Your task to perform on an android device: Search for razer naga on walmart.com, select the first entry, and add it to the cart. Image 0: 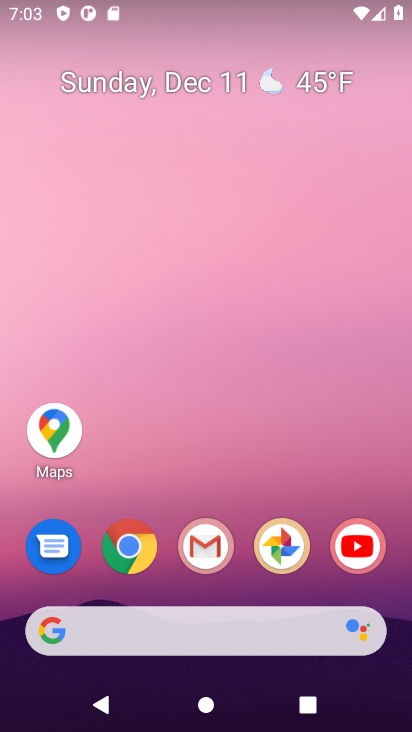
Step 0: click (133, 549)
Your task to perform on an android device: Search for razer naga on walmart.com, select the first entry, and add it to the cart. Image 1: 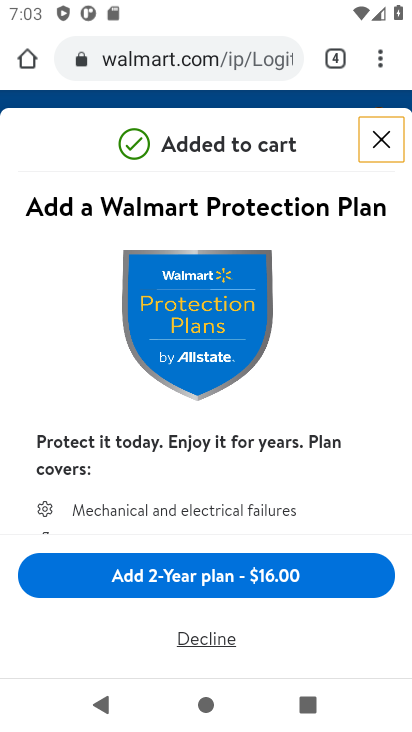
Step 1: click (378, 138)
Your task to perform on an android device: Search for razer naga on walmart.com, select the first entry, and add it to the cart. Image 2: 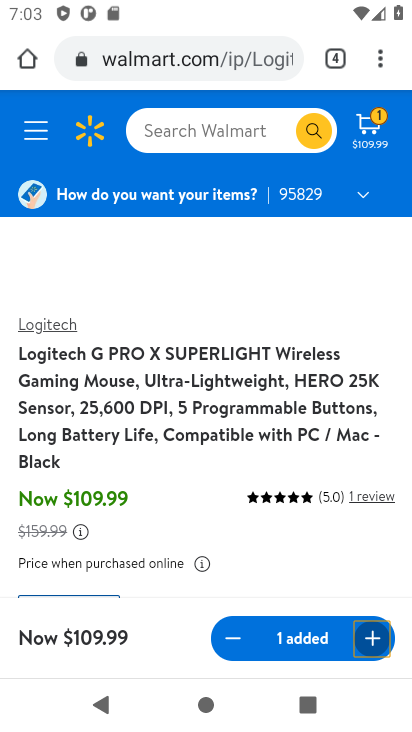
Step 2: click (190, 129)
Your task to perform on an android device: Search for razer naga on walmart.com, select the first entry, and add it to the cart. Image 3: 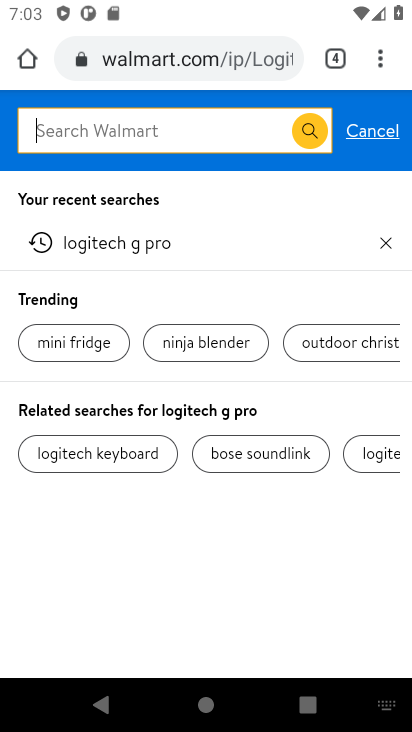
Step 3: type "razer naga"
Your task to perform on an android device: Search for razer naga on walmart.com, select the first entry, and add it to the cart. Image 4: 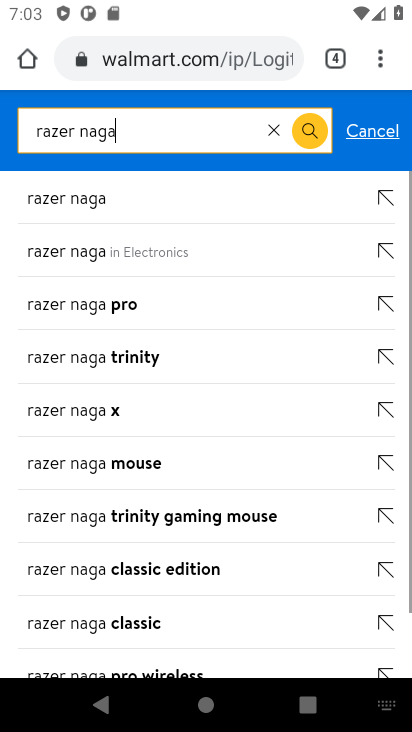
Step 4: click (56, 198)
Your task to perform on an android device: Search for razer naga on walmart.com, select the first entry, and add it to the cart. Image 5: 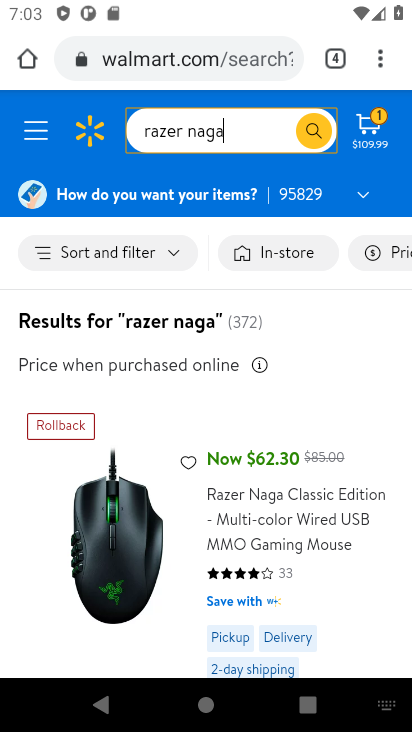
Step 5: drag from (165, 503) to (179, 240)
Your task to perform on an android device: Search for razer naga on walmart.com, select the first entry, and add it to the cart. Image 6: 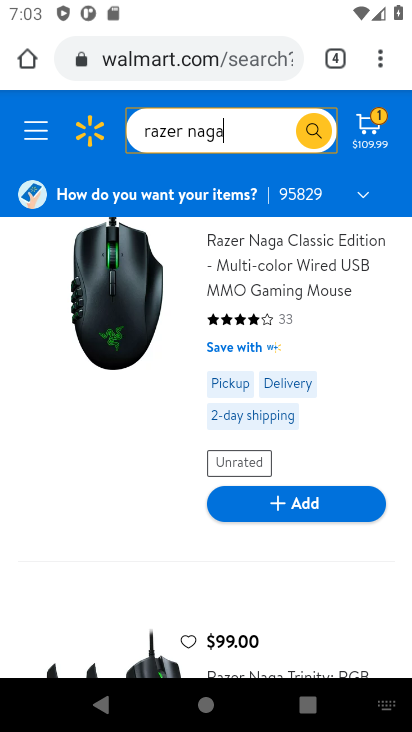
Step 6: click (272, 508)
Your task to perform on an android device: Search for razer naga on walmart.com, select the first entry, and add it to the cart. Image 7: 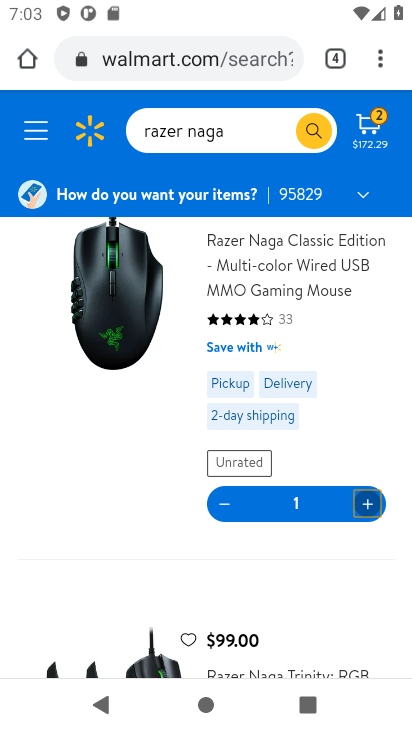
Step 7: task complete